Your task to perform on an android device: What's on my calendar today? Image 0: 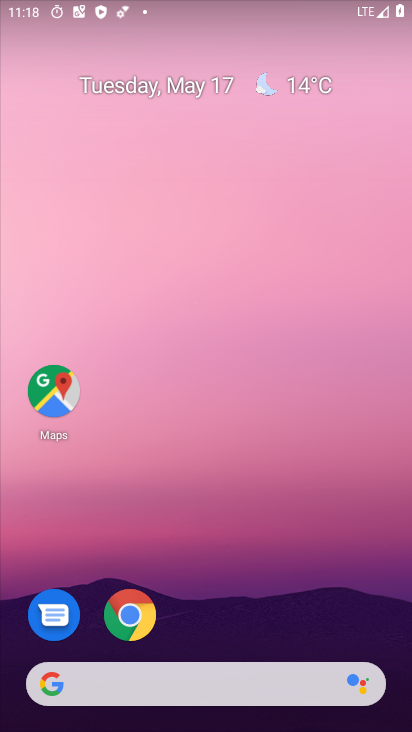
Step 0: drag from (223, 672) to (297, 191)
Your task to perform on an android device: What's on my calendar today? Image 1: 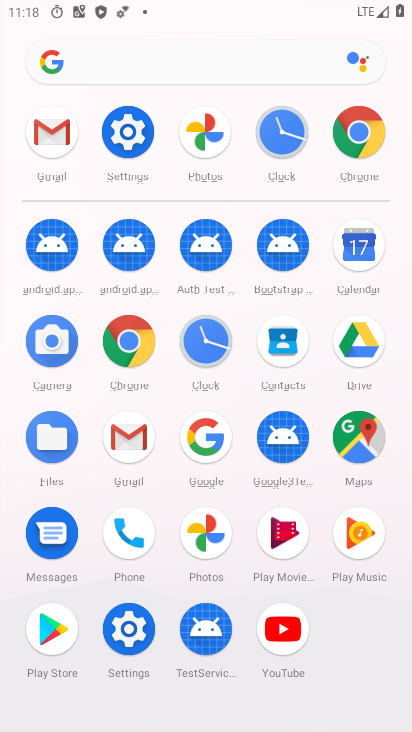
Step 1: click (357, 260)
Your task to perform on an android device: What's on my calendar today? Image 2: 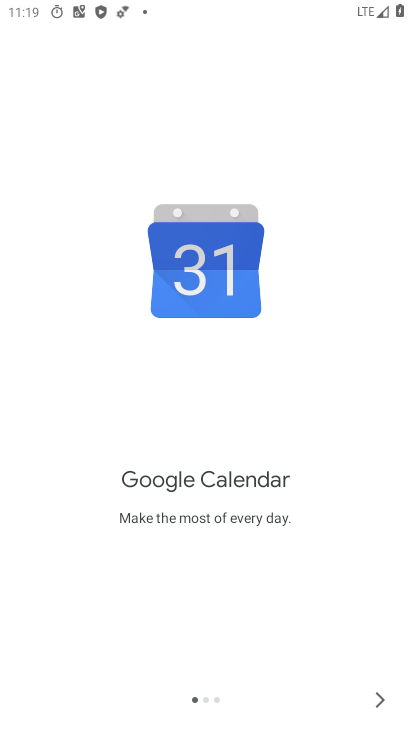
Step 2: click (375, 700)
Your task to perform on an android device: What's on my calendar today? Image 3: 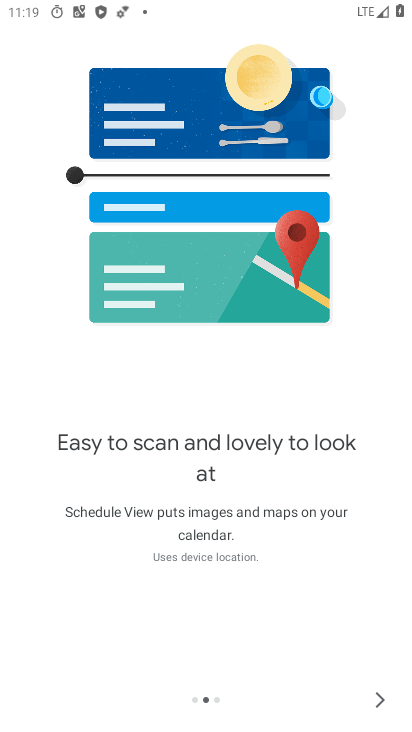
Step 3: click (375, 700)
Your task to perform on an android device: What's on my calendar today? Image 4: 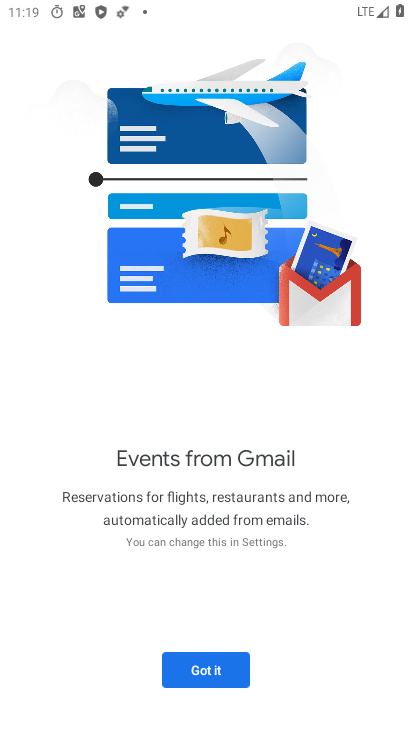
Step 4: click (213, 669)
Your task to perform on an android device: What's on my calendar today? Image 5: 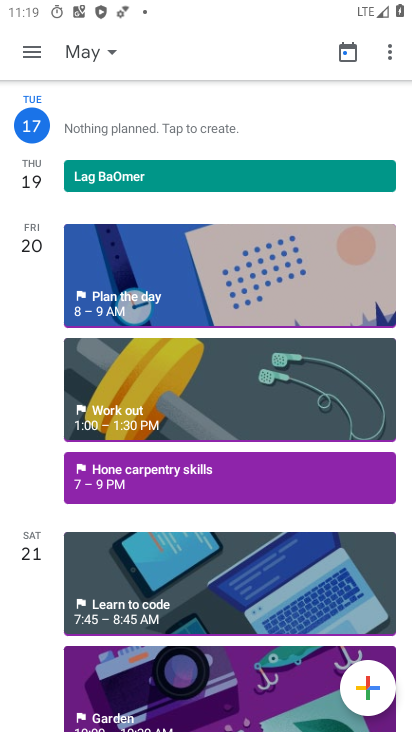
Step 5: click (82, 46)
Your task to perform on an android device: What's on my calendar today? Image 6: 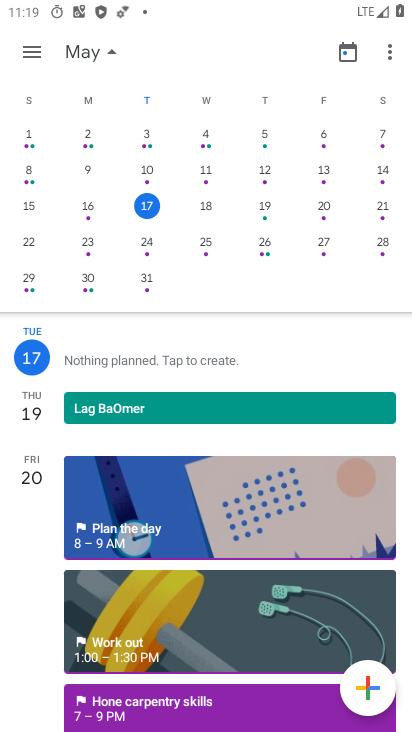
Step 6: click (144, 212)
Your task to perform on an android device: What's on my calendar today? Image 7: 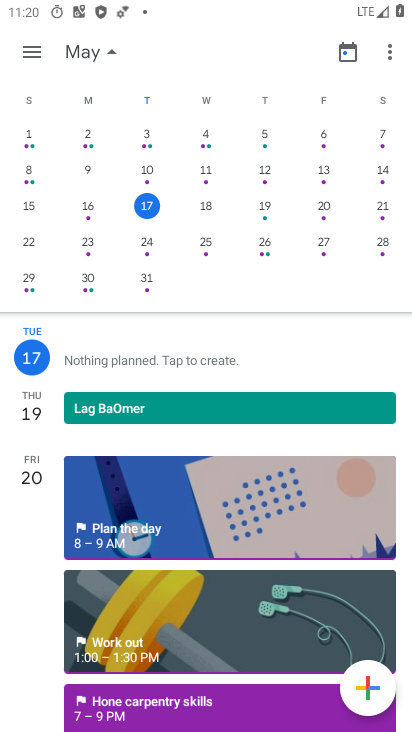
Step 7: click (29, 46)
Your task to perform on an android device: What's on my calendar today? Image 8: 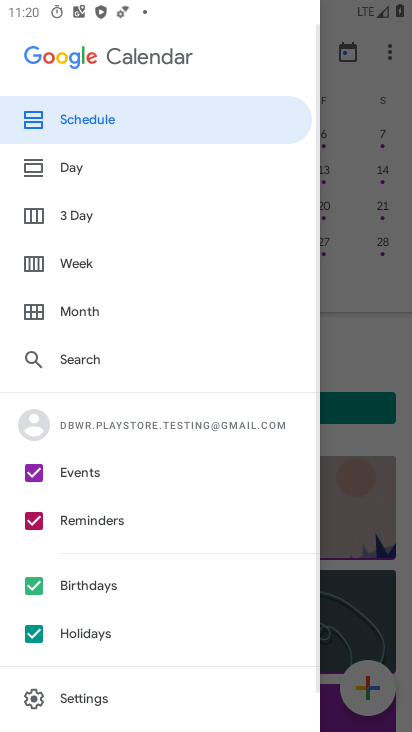
Step 8: click (105, 116)
Your task to perform on an android device: What's on my calendar today? Image 9: 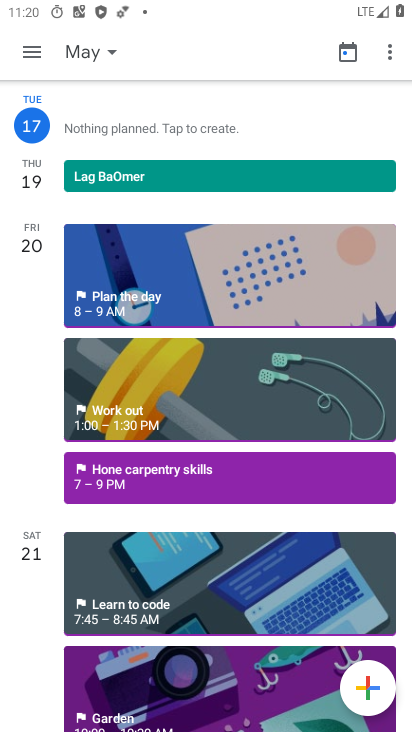
Step 9: task complete